Your task to perform on an android device: Search for vegetarian restaurants on Maps Image 0: 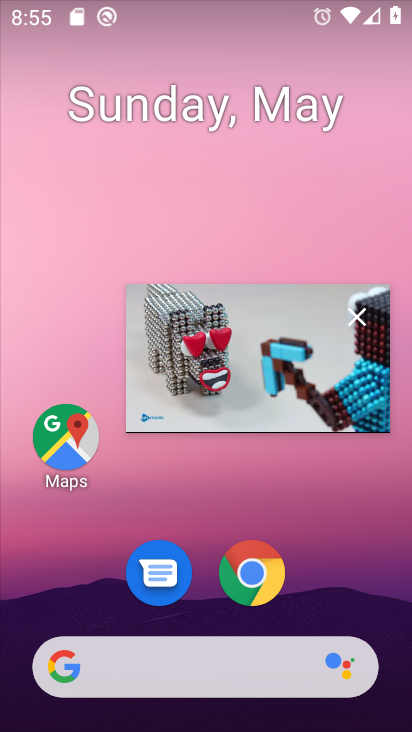
Step 0: drag from (293, 347) to (229, 730)
Your task to perform on an android device: Search for vegetarian restaurants on Maps Image 1: 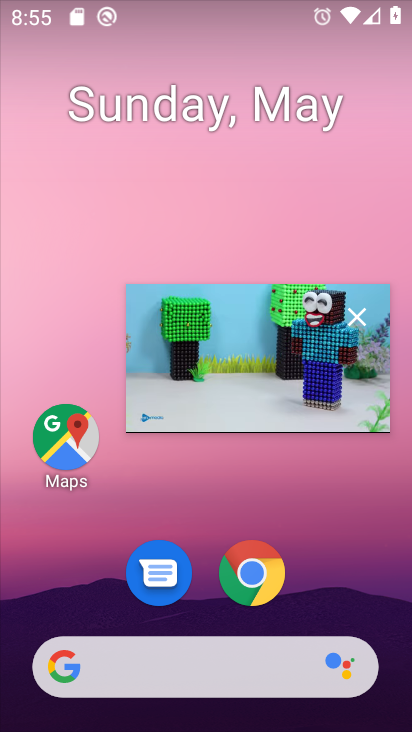
Step 1: click (364, 317)
Your task to perform on an android device: Search for vegetarian restaurants on Maps Image 2: 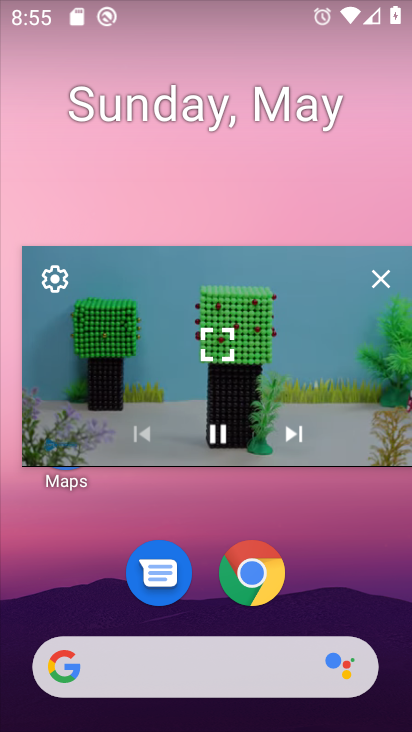
Step 2: click (385, 274)
Your task to perform on an android device: Search for vegetarian restaurants on Maps Image 3: 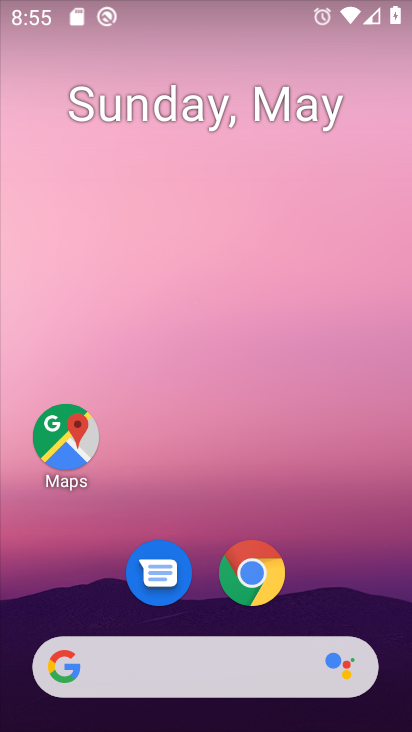
Step 3: click (66, 433)
Your task to perform on an android device: Search for vegetarian restaurants on Maps Image 4: 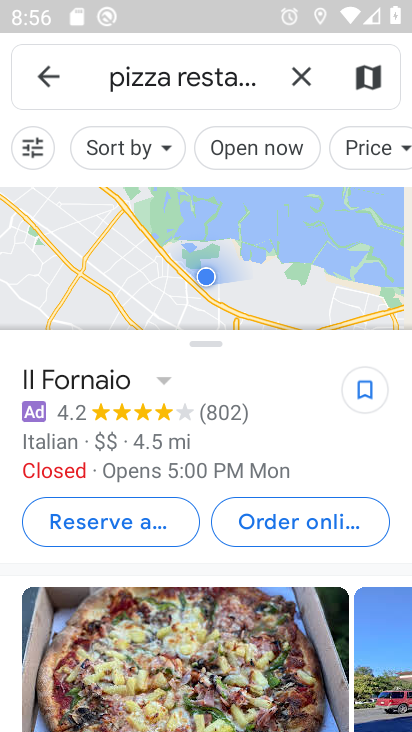
Step 4: click (303, 79)
Your task to perform on an android device: Search for vegetarian restaurants on Maps Image 5: 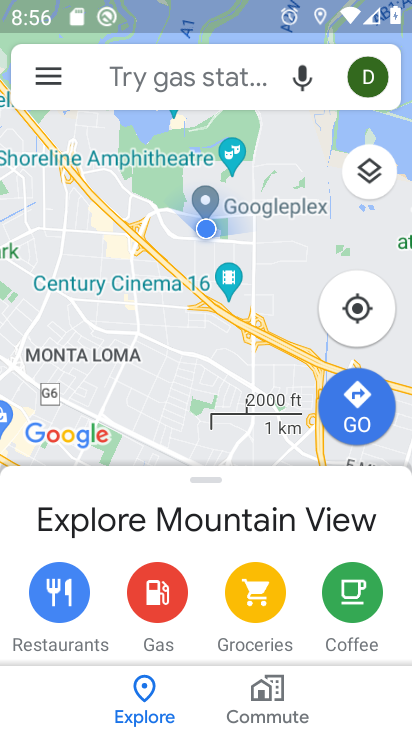
Step 5: click (221, 77)
Your task to perform on an android device: Search for vegetarian restaurants on Maps Image 6: 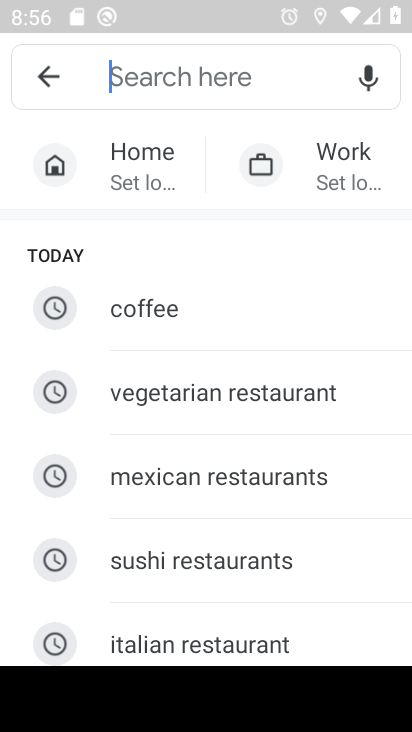
Step 6: click (210, 386)
Your task to perform on an android device: Search for vegetarian restaurants on Maps Image 7: 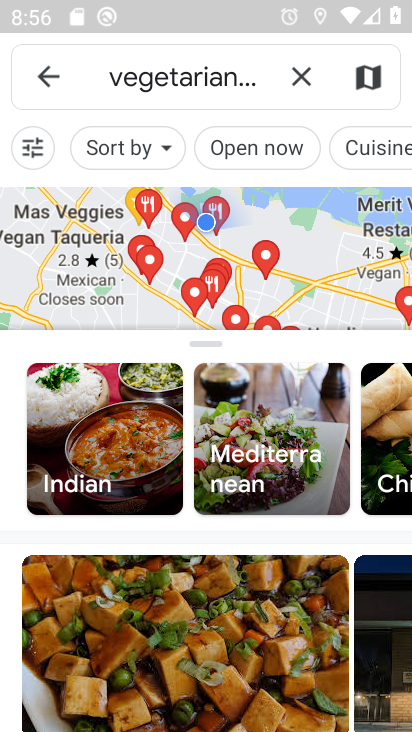
Step 7: task complete